Your task to perform on an android device: Go to Yahoo.com Image 0: 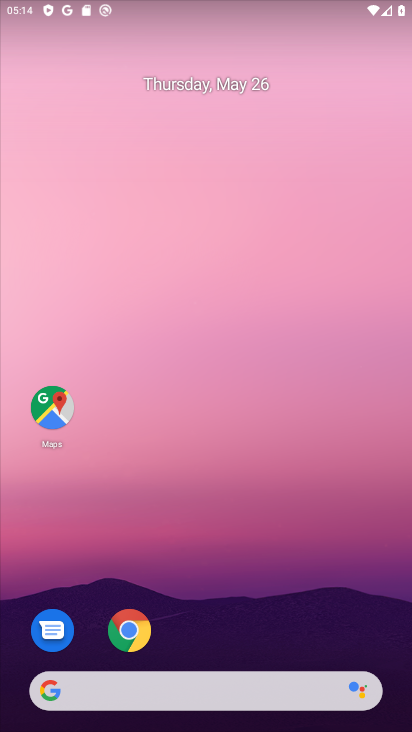
Step 0: click (127, 635)
Your task to perform on an android device: Go to Yahoo.com Image 1: 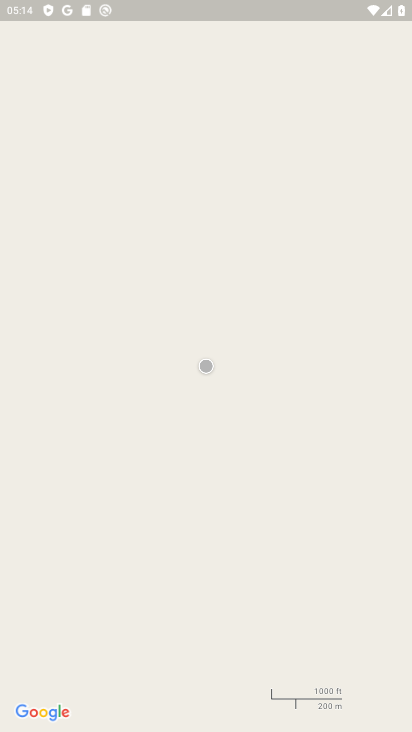
Step 1: press home button
Your task to perform on an android device: Go to Yahoo.com Image 2: 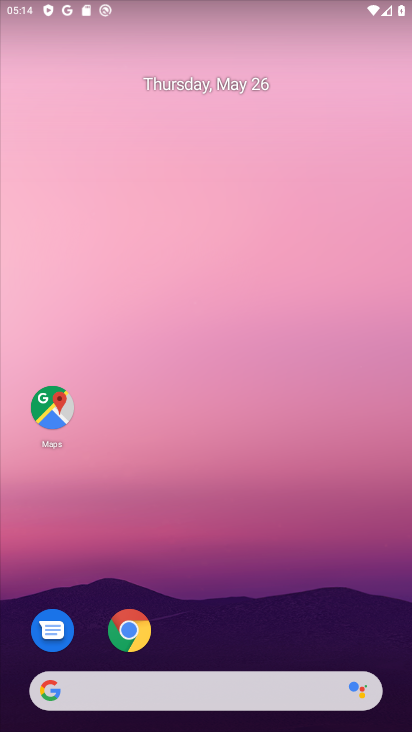
Step 2: click (119, 624)
Your task to perform on an android device: Go to Yahoo.com Image 3: 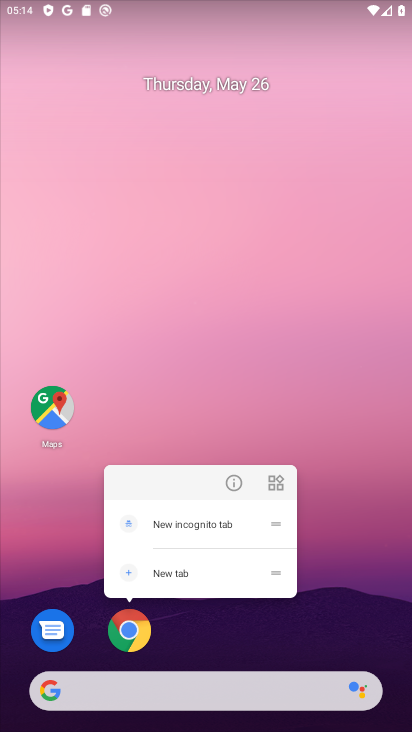
Step 3: click (138, 639)
Your task to perform on an android device: Go to Yahoo.com Image 4: 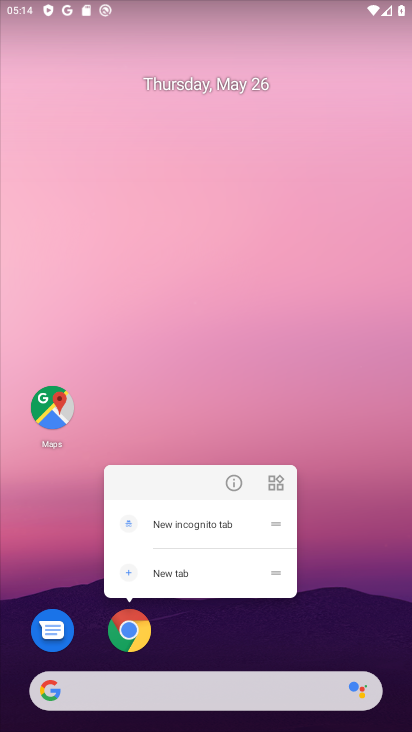
Step 4: click (138, 639)
Your task to perform on an android device: Go to Yahoo.com Image 5: 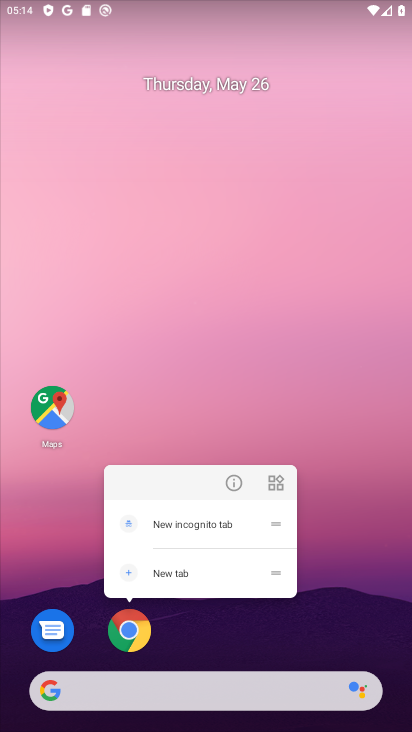
Step 5: click (138, 631)
Your task to perform on an android device: Go to Yahoo.com Image 6: 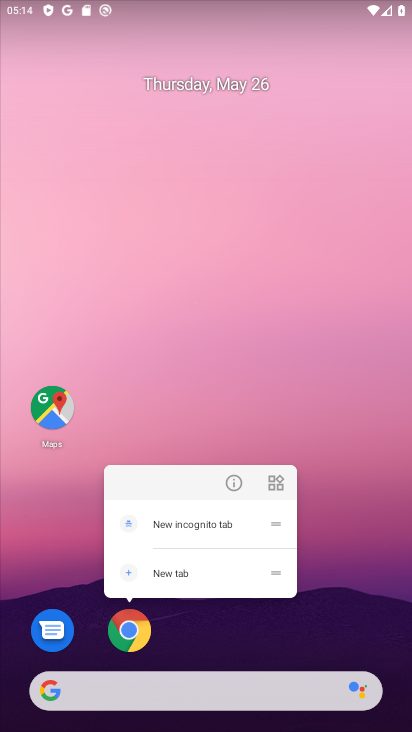
Step 6: click (141, 632)
Your task to perform on an android device: Go to Yahoo.com Image 7: 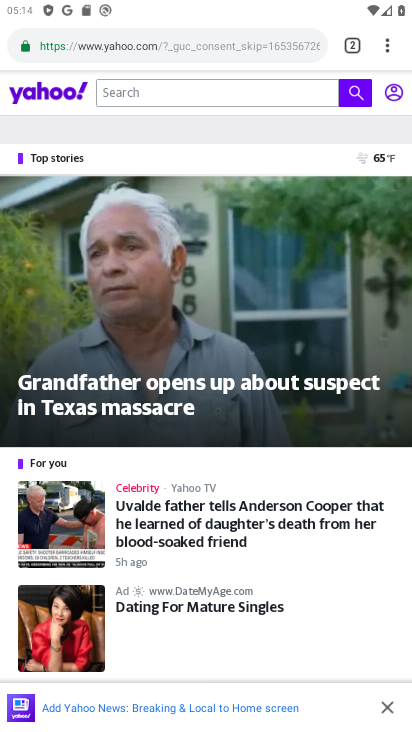
Step 7: drag from (392, 47) to (339, 104)
Your task to perform on an android device: Go to Yahoo.com Image 8: 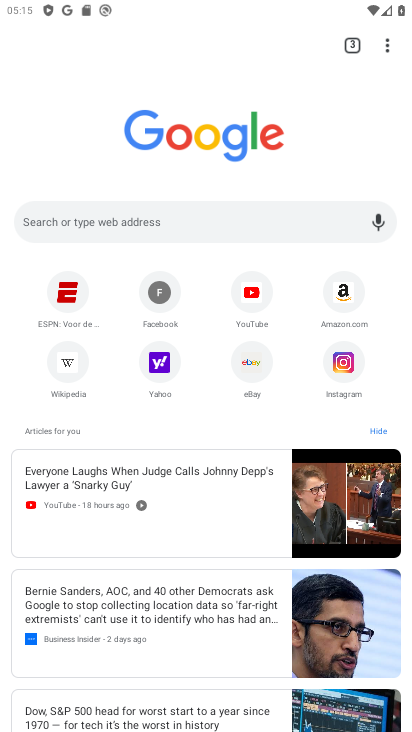
Step 8: click (159, 367)
Your task to perform on an android device: Go to Yahoo.com Image 9: 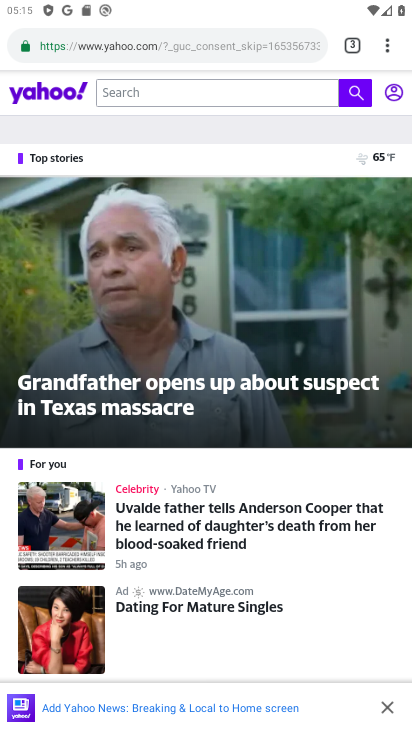
Step 9: task complete